Your task to perform on an android device: Search for macbook on target, select the first entry, add it to the cart, then select checkout. Image 0: 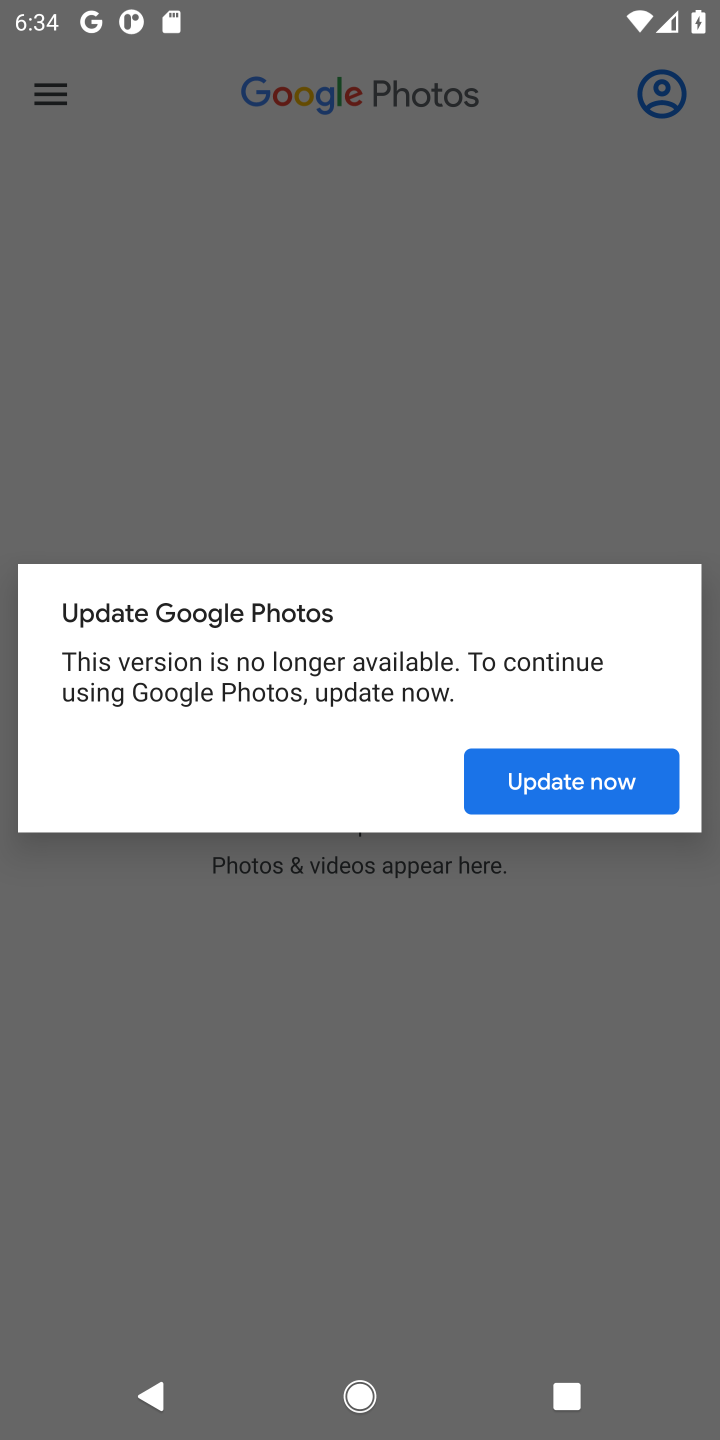
Step 0: press home button
Your task to perform on an android device: Search for macbook on target, select the first entry, add it to the cart, then select checkout. Image 1: 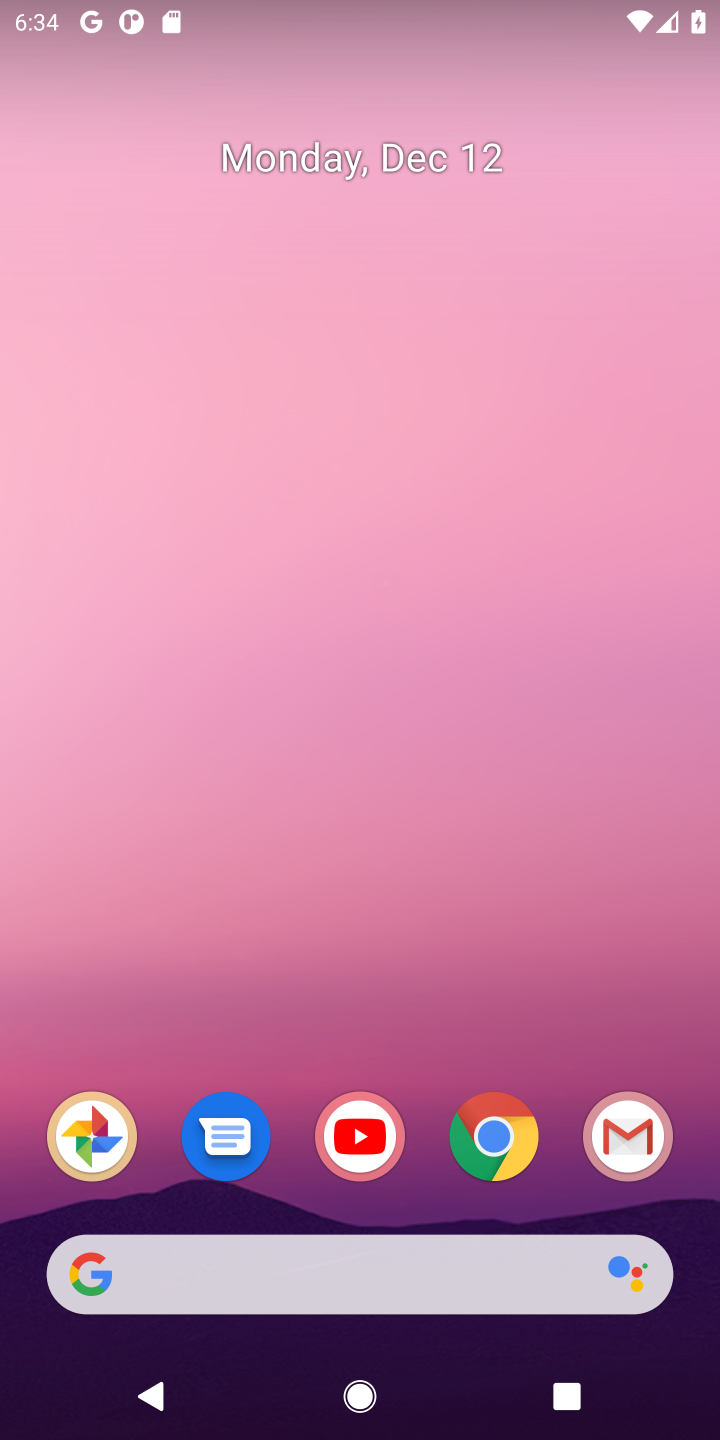
Step 1: click (491, 1150)
Your task to perform on an android device: Search for macbook on target, select the first entry, add it to the cart, then select checkout. Image 2: 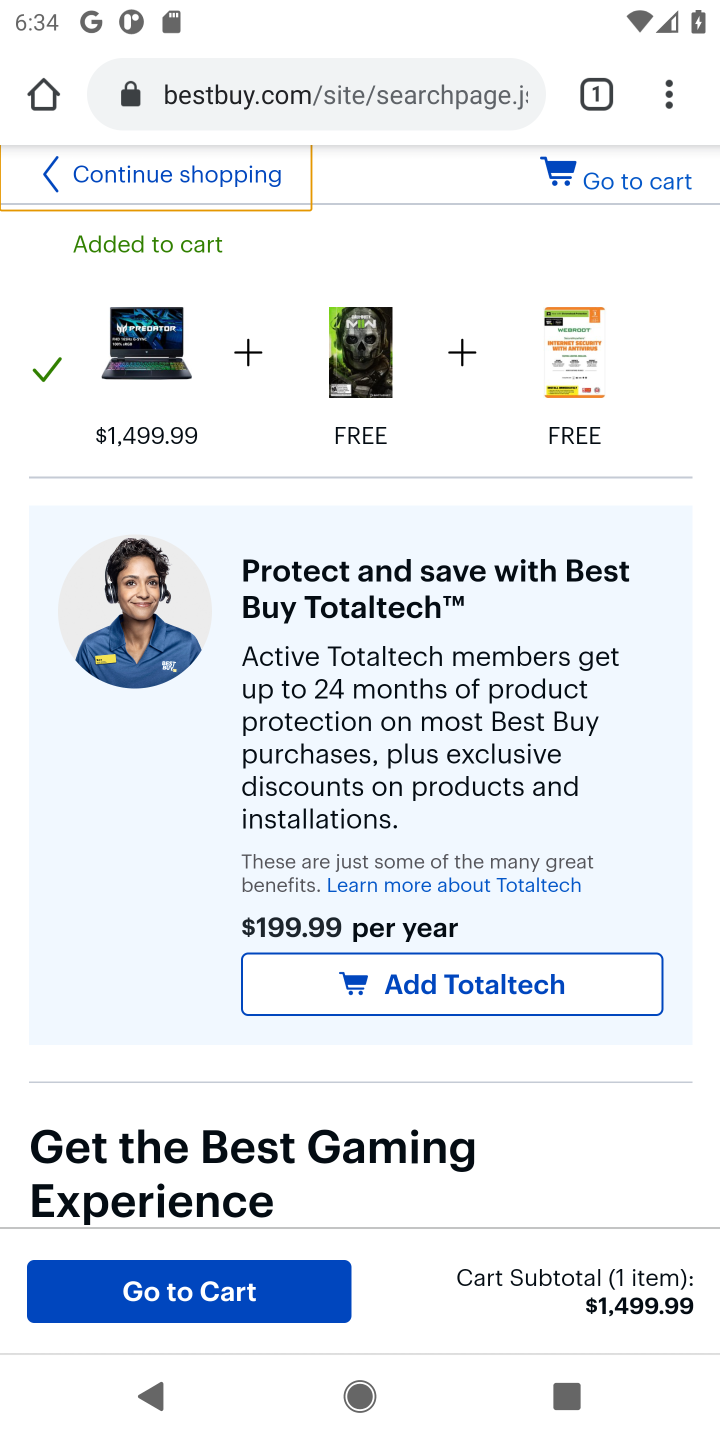
Step 2: click (295, 96)
Your task to perform on an android device: Search for macbook on target, select the first entry, add it to the cart, then select checkout. Image 3: 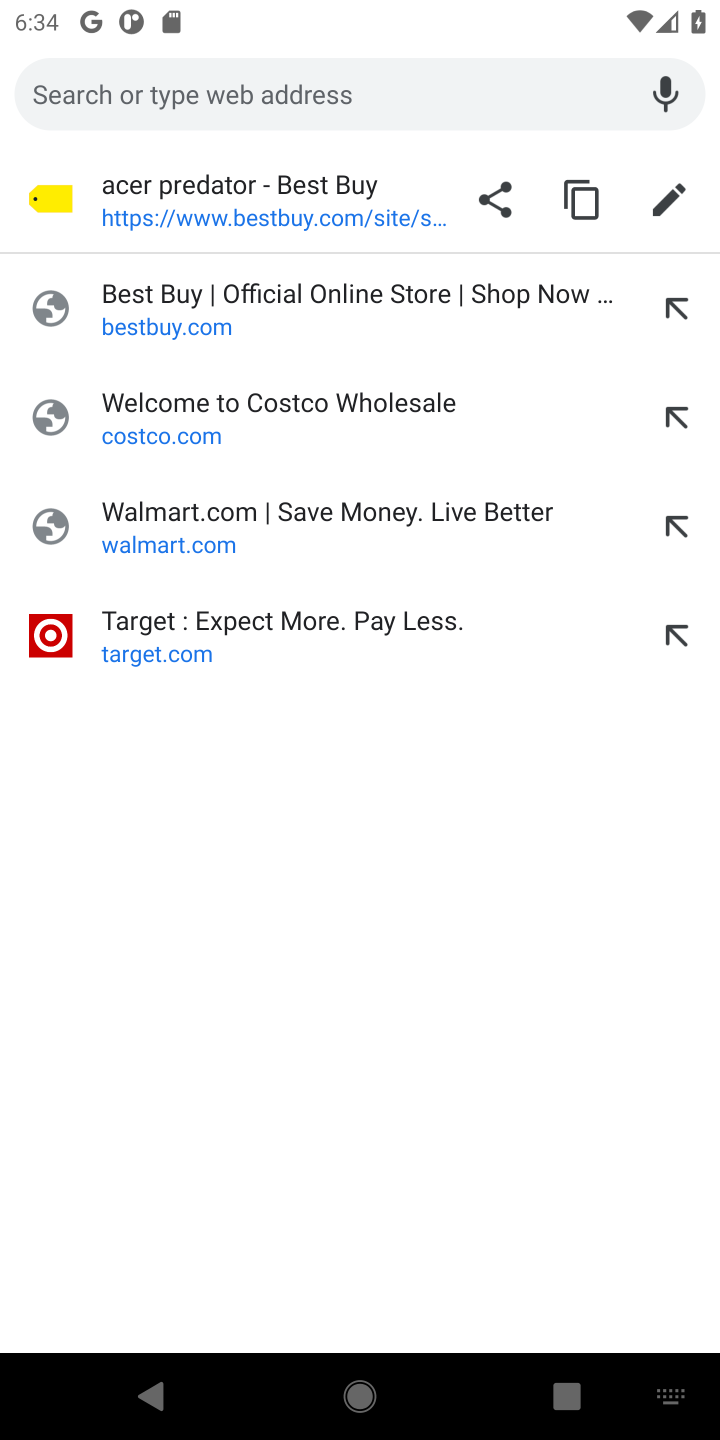
Step 3: click (146, 643)
Your task to perform on an android device: Search for macbook on target, select the first entry, add it to the cart, then select checkout. Image 4: 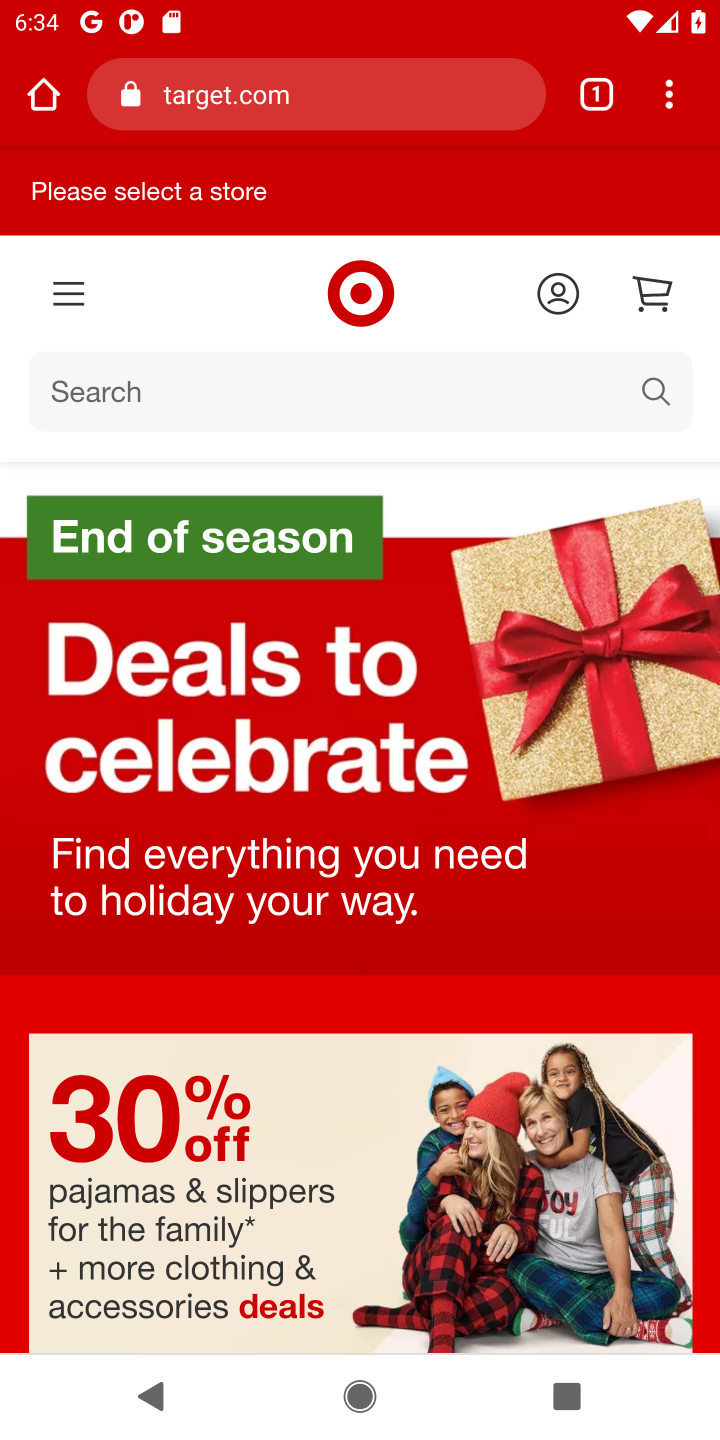
Step 4: click (89, 382)
Your task to perform on an android device: Search for macbook on target, select the first entry, add it to the cart, then select checkout. Image 5: 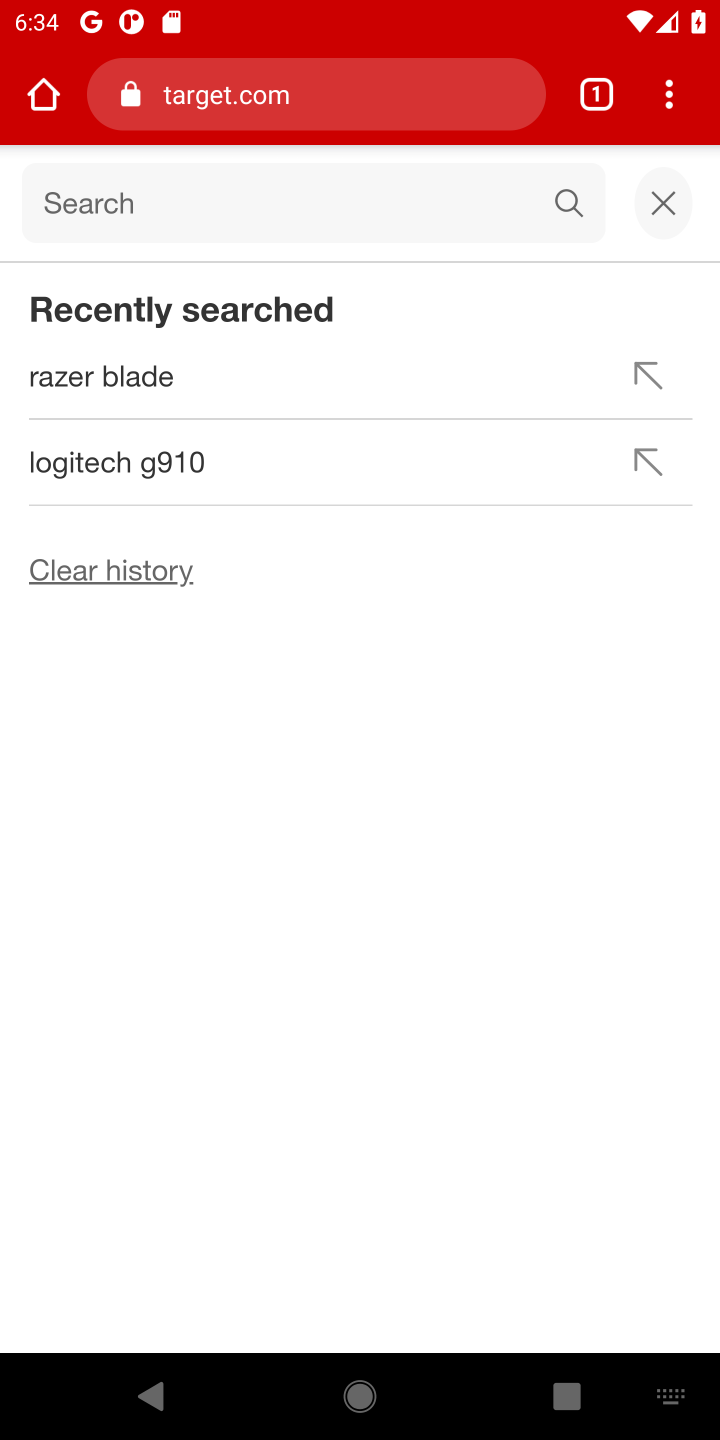
Step 5: type "macbook"
Your task to perform on an android device: Search for macbook on target, select the first entry, add it to the cart, then select checkout. Image 6: 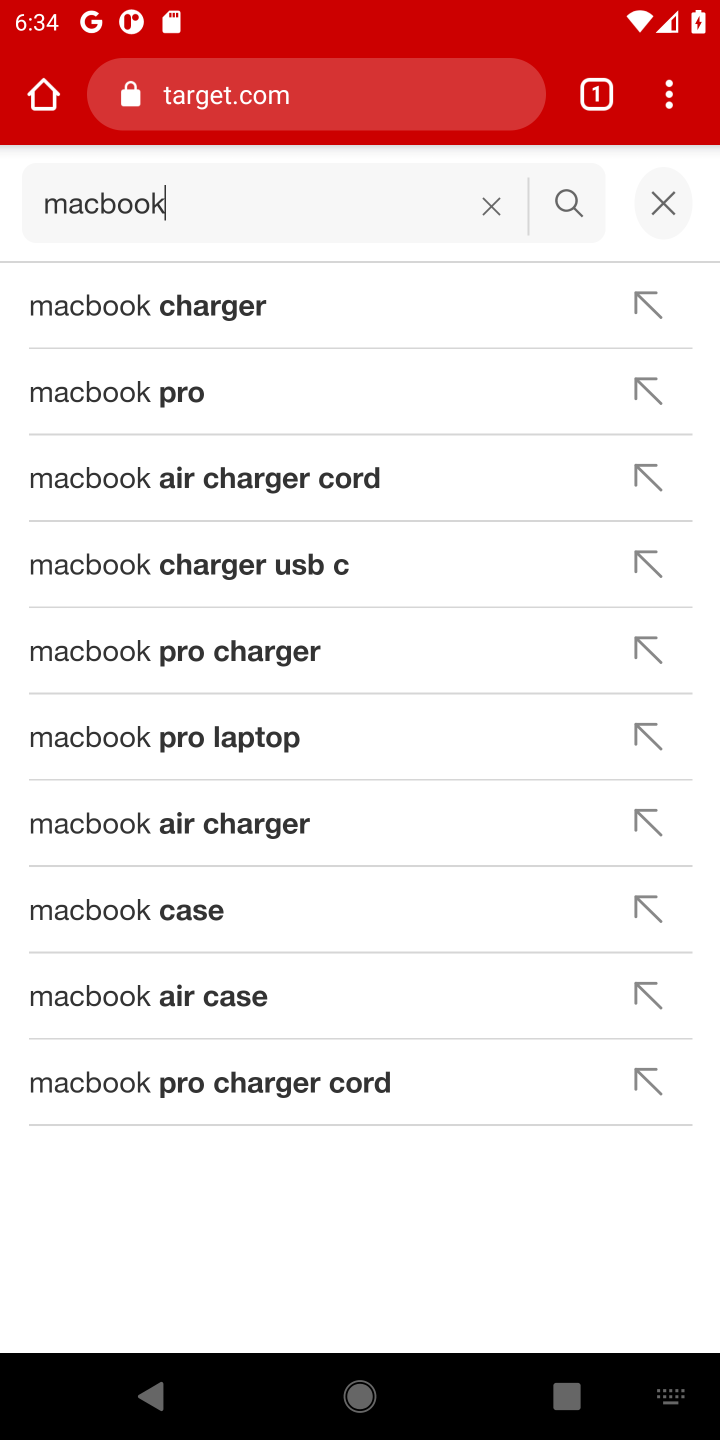
Step 6: click (573, 207)
Your task to perform on an android device: Search for macbook on target, select the first entry, add it to the cart, then select checkout. Image 7: 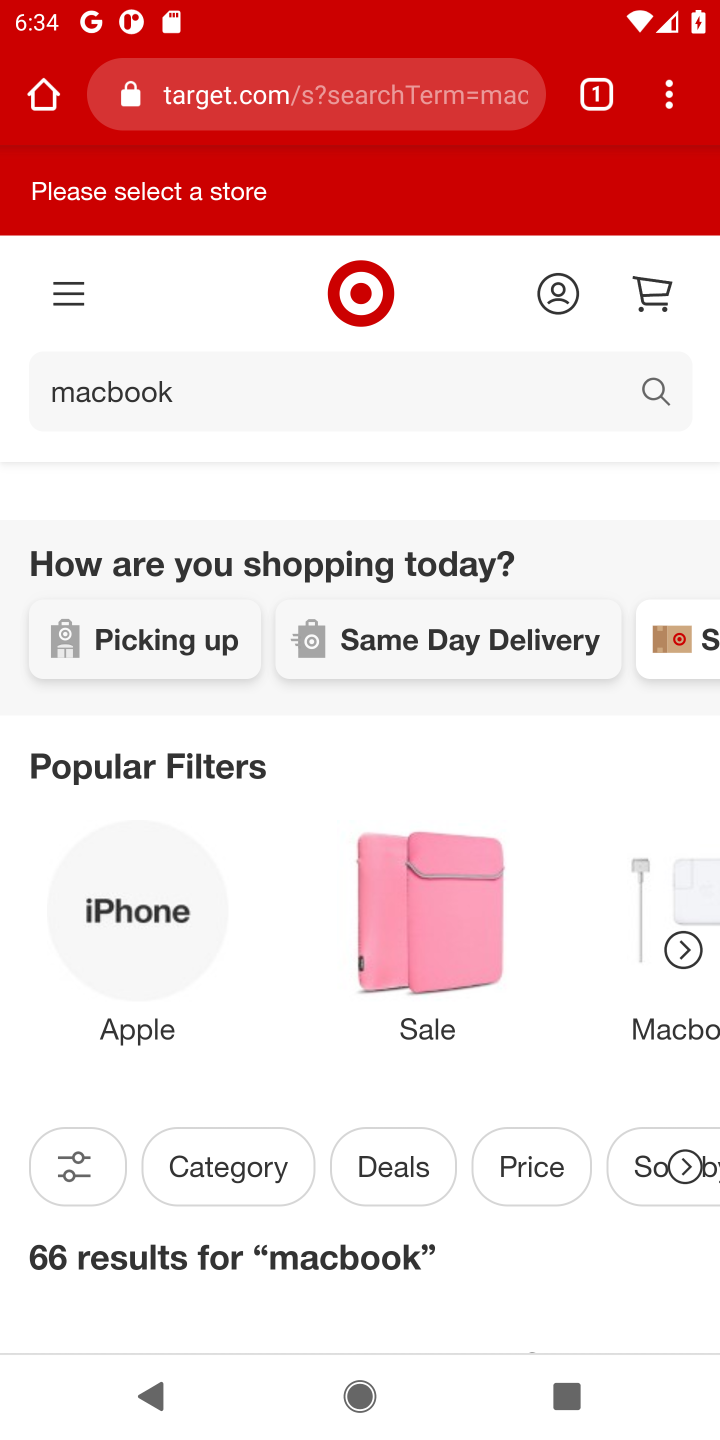
Step 7: drag from (235, 946) to (223, 440)
Your task to perform on an android device: Search for macbook on target, select the first entry, add it to the cart, then select checkout. Image 8: 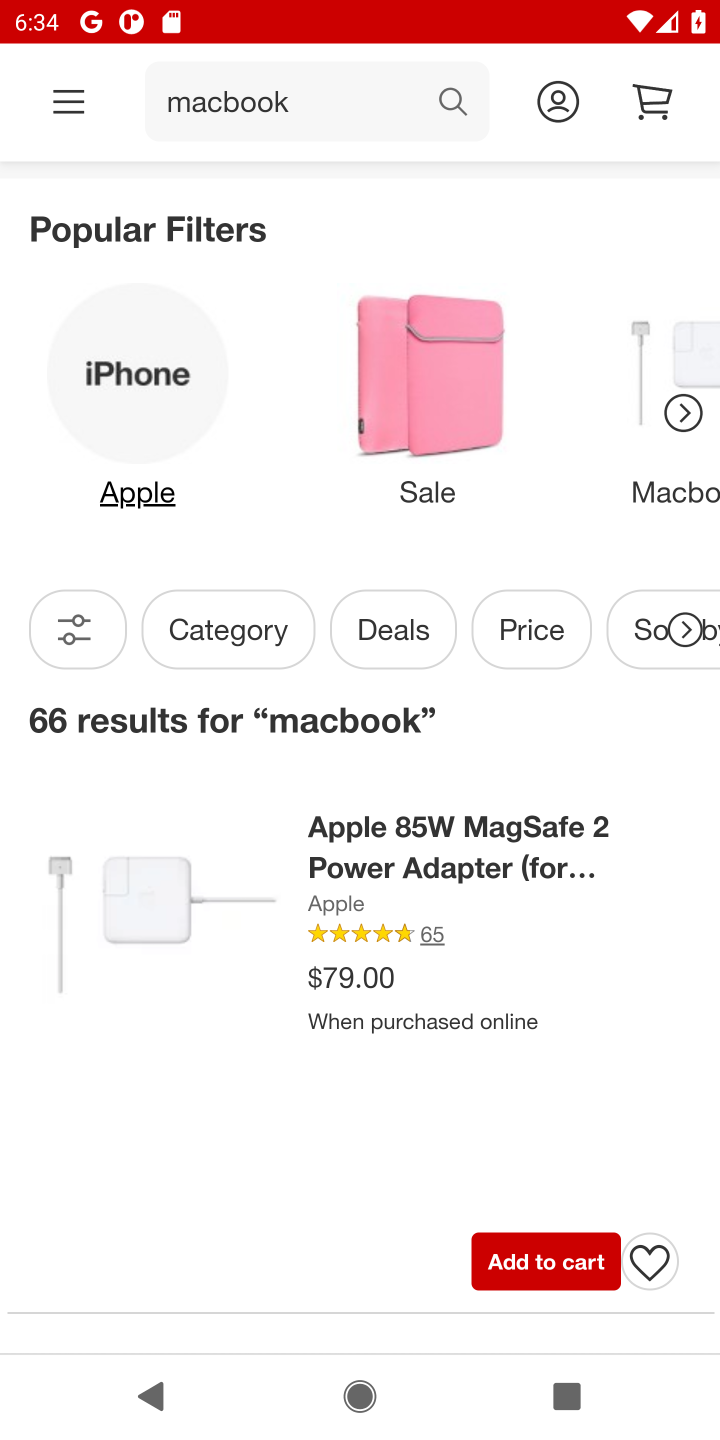
Step 8: drag from (240, 946) to (209, 565)
Your task to perform on an android device: Search for macbook on target, select the first entry, add it to the cart, then select checkout. Image 9: 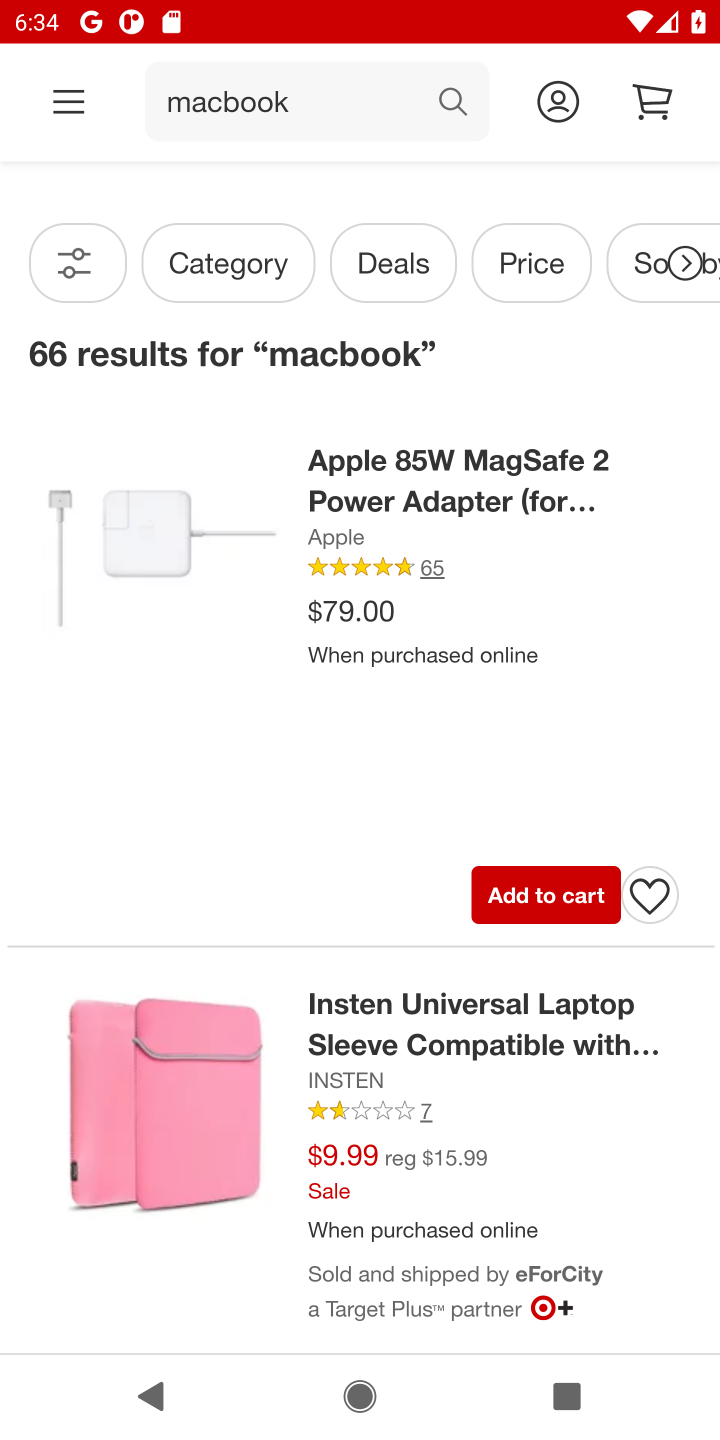
Step 9: click (502, 893)
Your task to perform on an android device: Search for macbook on target, select the first entry, add it to the cart, then select checkout. Image 10: 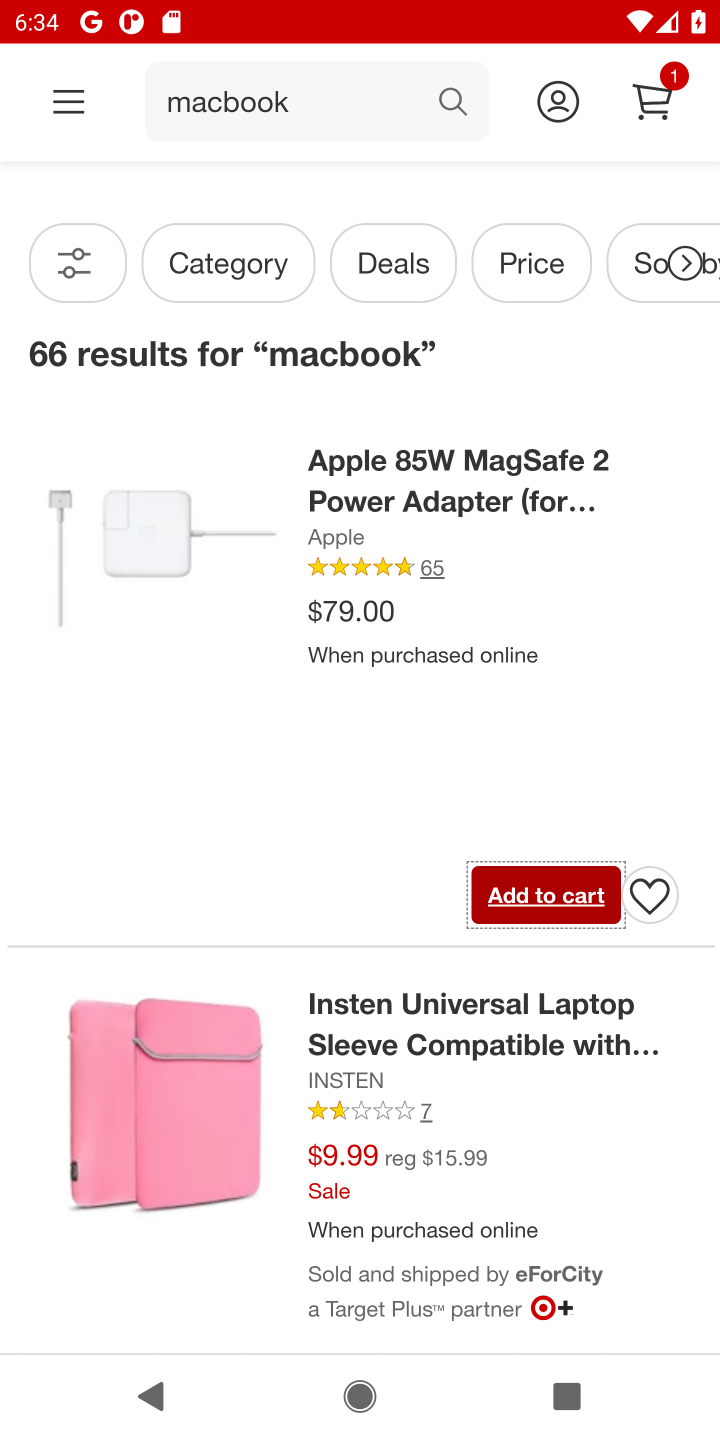
Step 10: click (642, 120)
Your task to perform on an android device: Search for macbook on target, select the first entry, add it to the cart, then select checkout. Image 11: 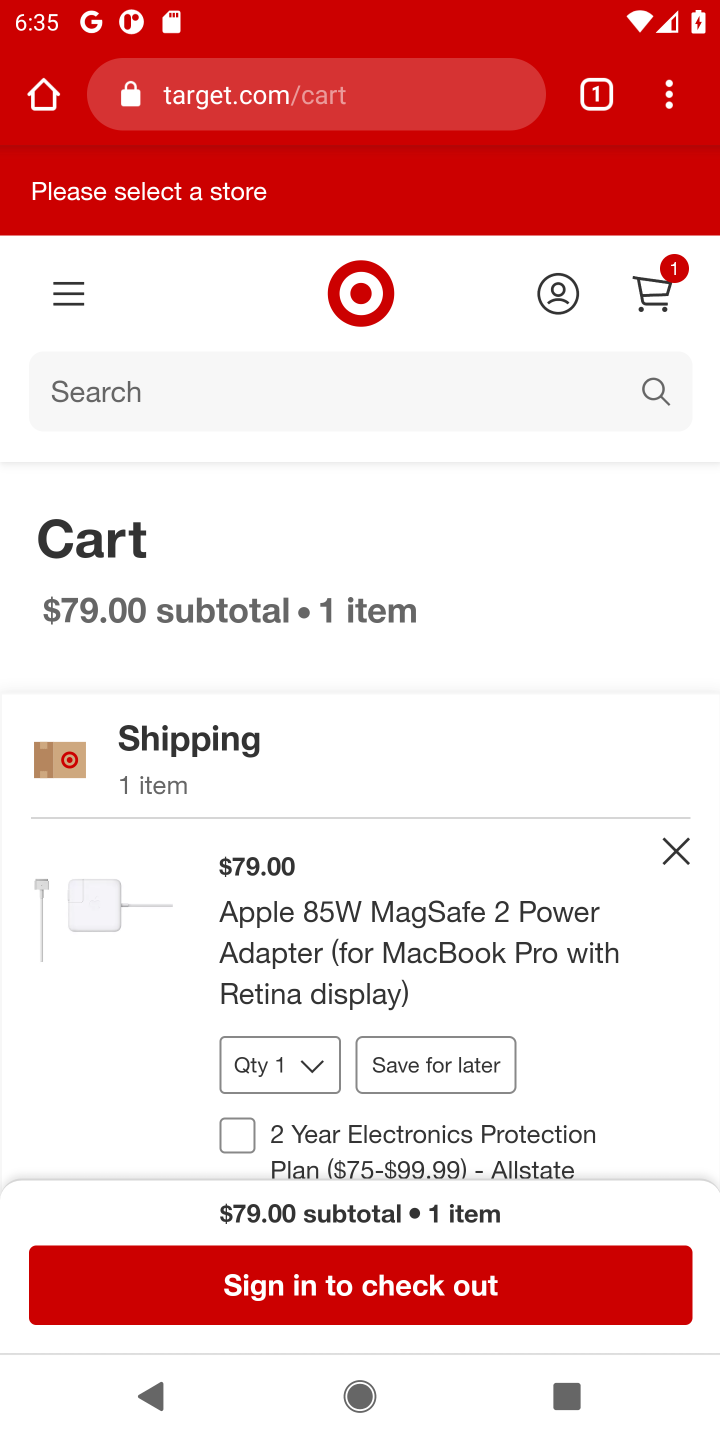
Step 11: click (323, 1285)
Your task to perform on an android device: Search for macbook on target, select the first entry, add it to the cart, then select checkout. Image 12: 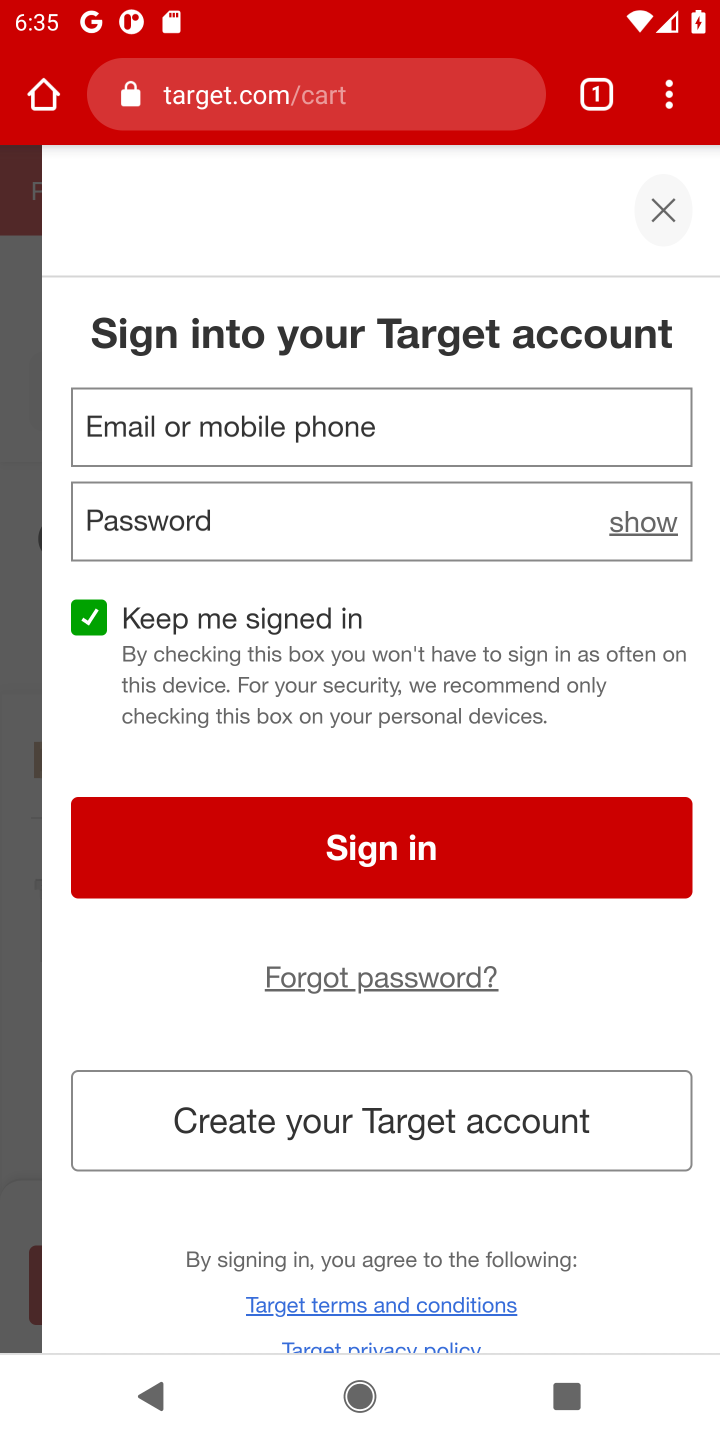
Step 12: task complete